Your task to perform on an android device: choose inbox layout in the gmail app Image 0: 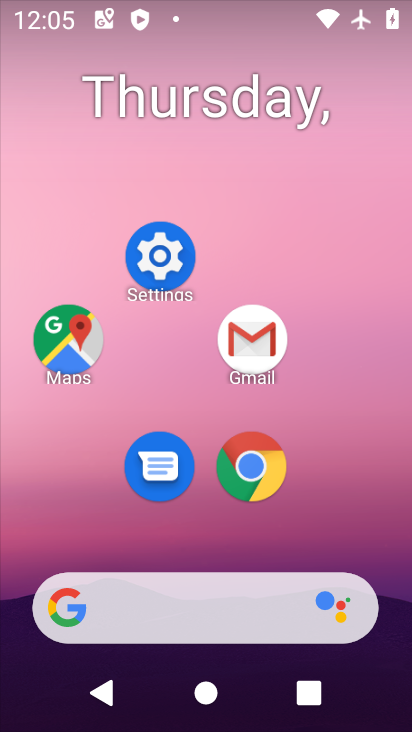
Step 0: drag from (205, 531) to (227, 321)
Your task to perform on an android device: choose inbox layout in the gmail app Image 1: 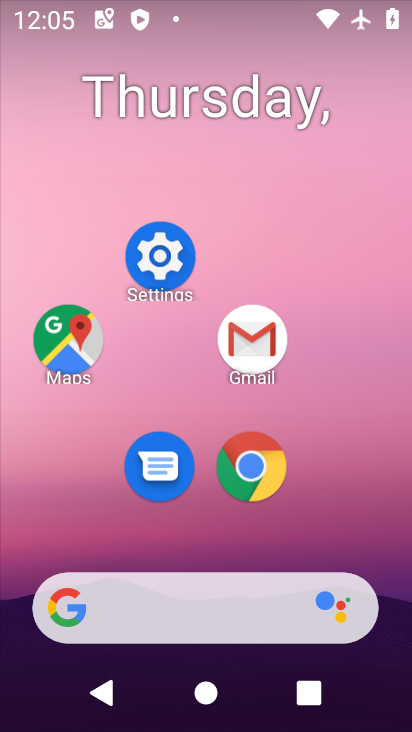
Step 1: click (211, 193)
Your task to perform on an android device: choose inbox layout in the gmail app Image 2: 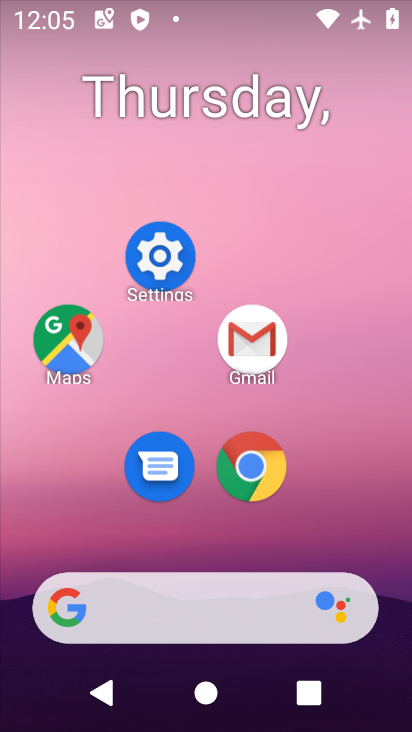
Step 2: drag from (195, 495) to (160, 164)
Your task to perform on an android device: choose inbox layout in the gmail app Image 3: 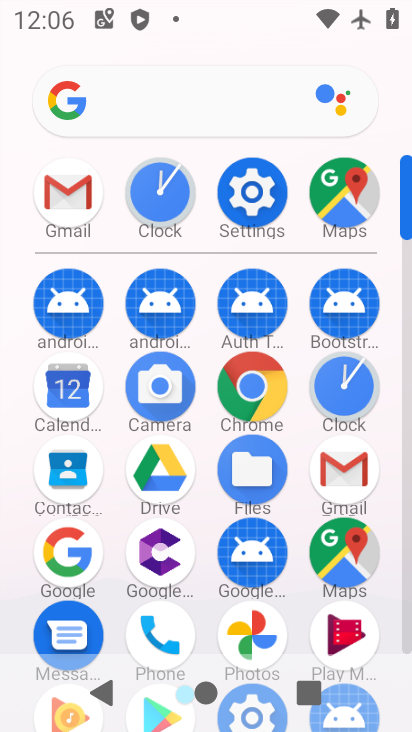
Step 3: click (329, 487)
Your task to perform on an android device: choose inbox layout in the gmail app Image 4: 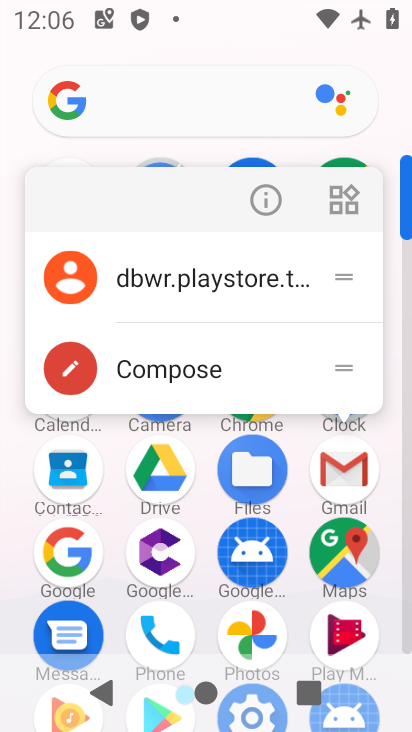
Step 4: click (268, 206)
Your task to perform on an android device: choose inbox layout in the gmail app Image 5: 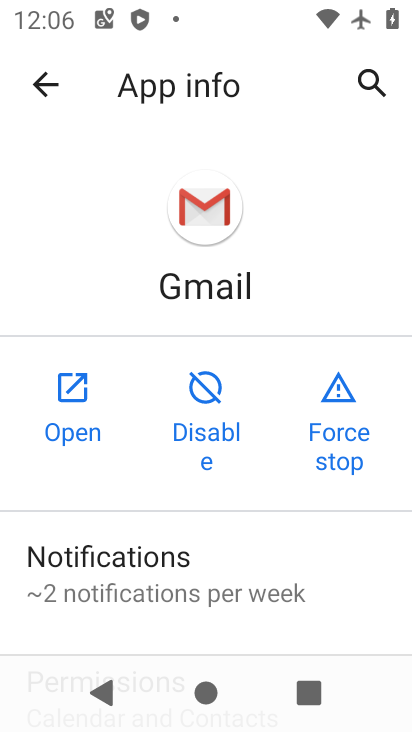
Step 5: click (70, 367)
Your task to perform on an android device: choose inbox layout in the gmail app Image 6: 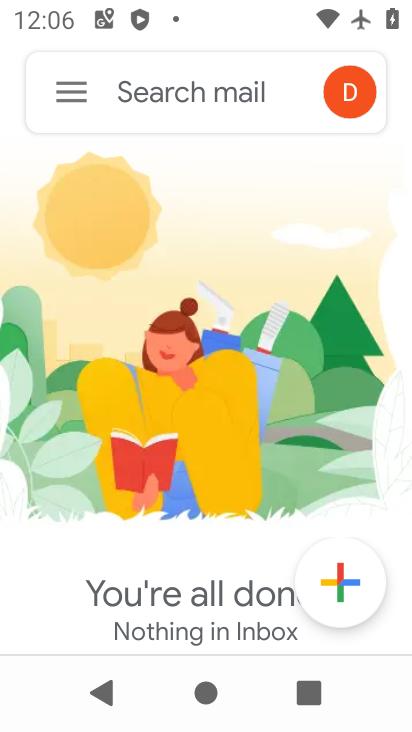
Step 6: drag from (145, 553) to (190, 220)
Your task to perform on an android device: choose inbox layout in the gmail app Image 7: 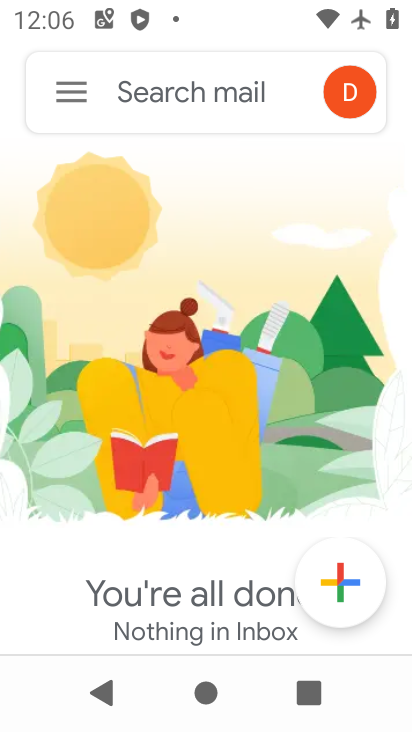
Step 7: click (66, 82)
Your task to perform on an android device: choose inbox layout in the gmail app Image 8: 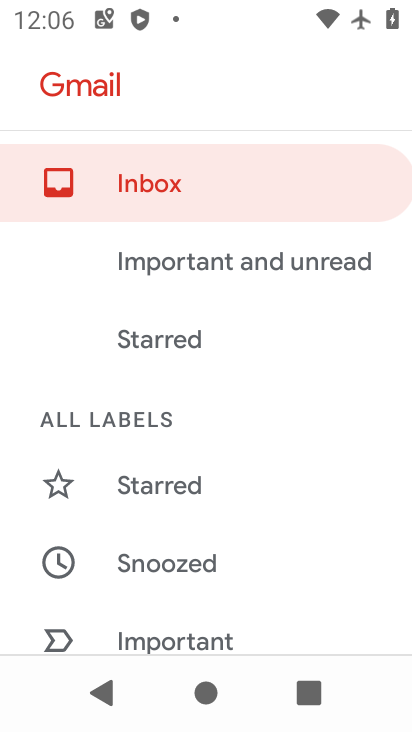
Step 8: drag from (192, 564) to (243, 198)
Your task to perform on an android device: choose inbox layout in the gmail app Image 9: 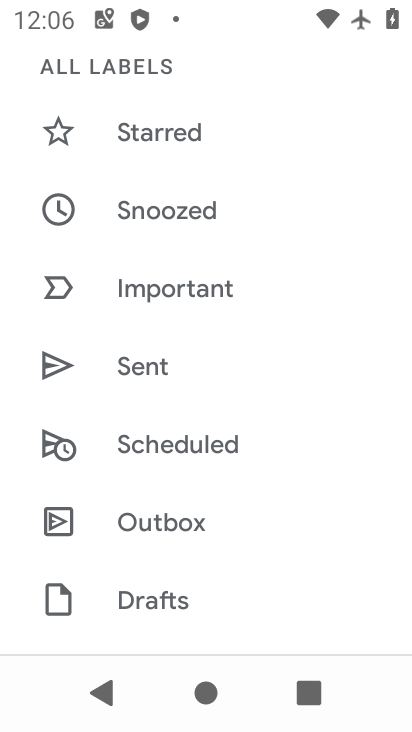
Step 9: drag from (205, 558) to (225, 218)
Your task to perform on an android device: choose inbox layout in the gmail app Image 10: 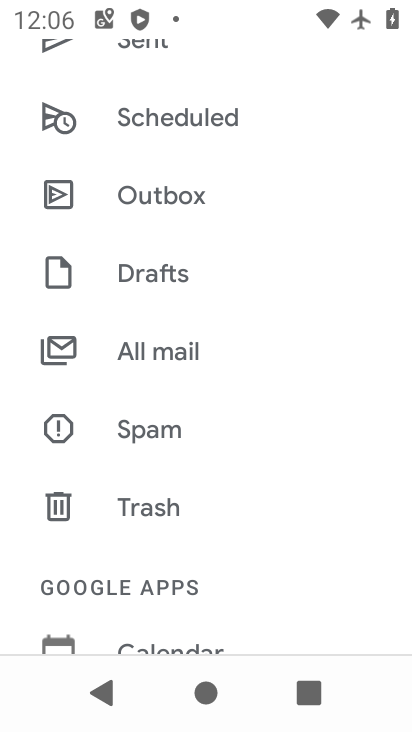
Step 10: click (257, 251)
Your task to perform on an android device: choose inbox layout in the gmail app Image 11: 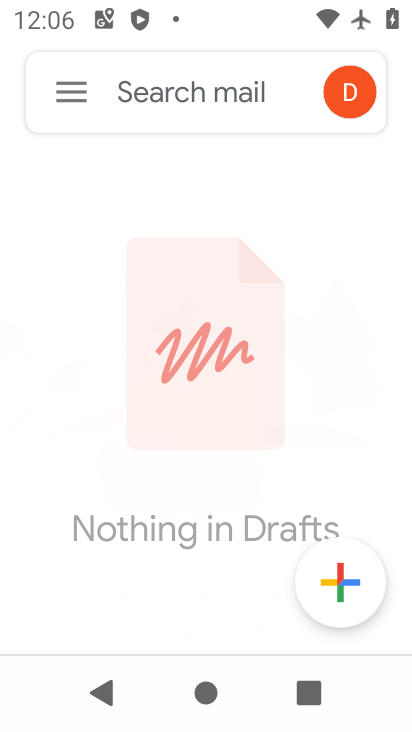
Step 11: drag from (187, 600) to (194, 219)
Your task to perform on an android device: choose inbox layout in the gmail app Image 12: 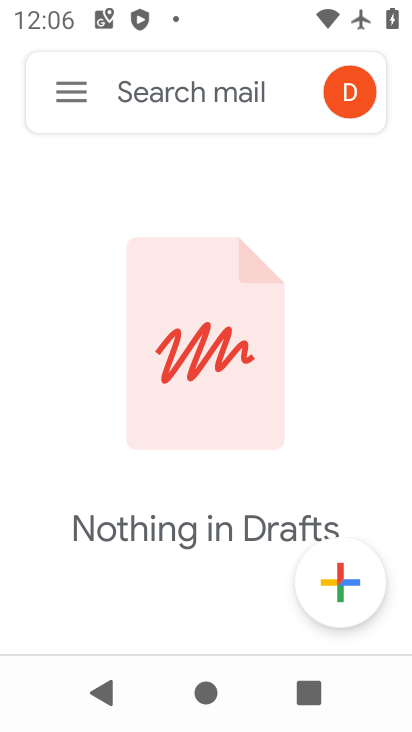
Step 12: click (75, 82)
Your task to perform on an android device: choose inbox layout in the gmail app Image 13: 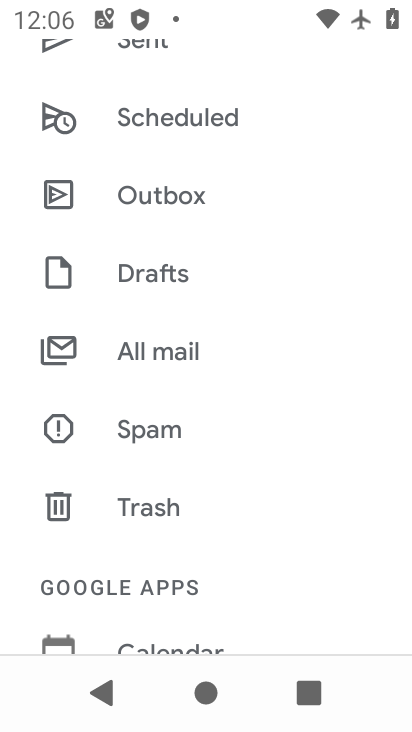
Step 13: drag from (181, 603) to (236, 91)
Your task to perform on an android device: choose inbox layout in the gmail app Image 14: 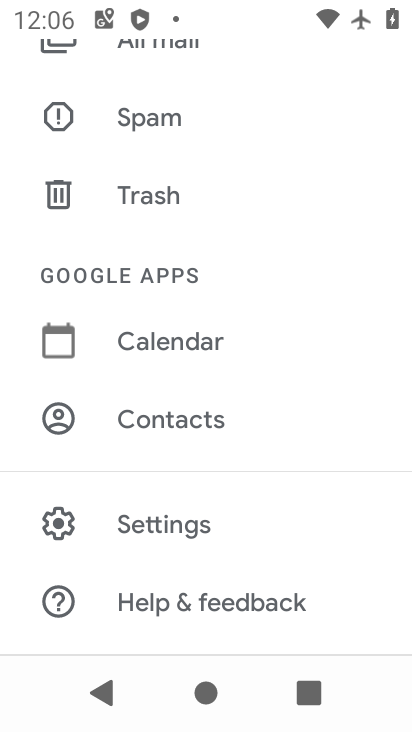
Step 14: click (163, 529)
Your task to perform on an android device: choose inbox layout in the gmail app Image 15: 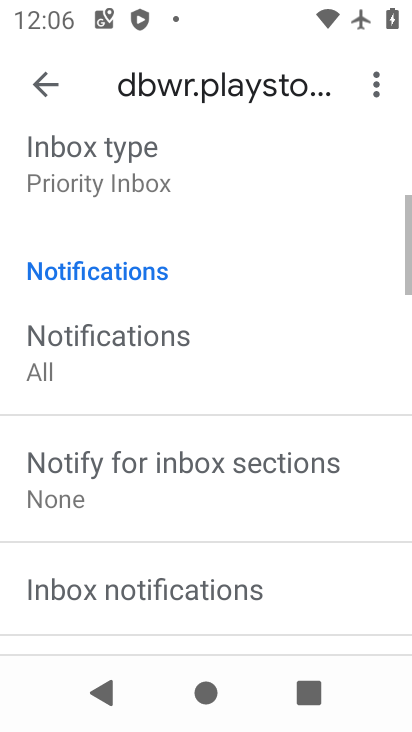
Step 15: drag from (184, 539) to (252, 151)
Your task to perform on an android device: choose inbox layout in the gmail app Image 16: 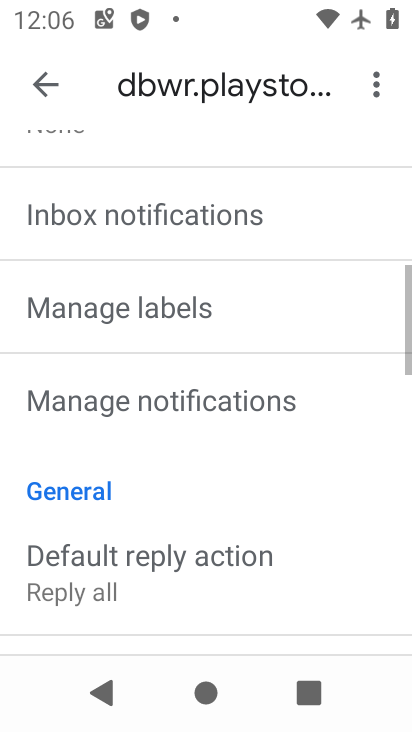
Step 16: drag from (194, 580) to (258, 224)
Your task to perform on an android device: choose inbox layout in the gmail app Image 17: 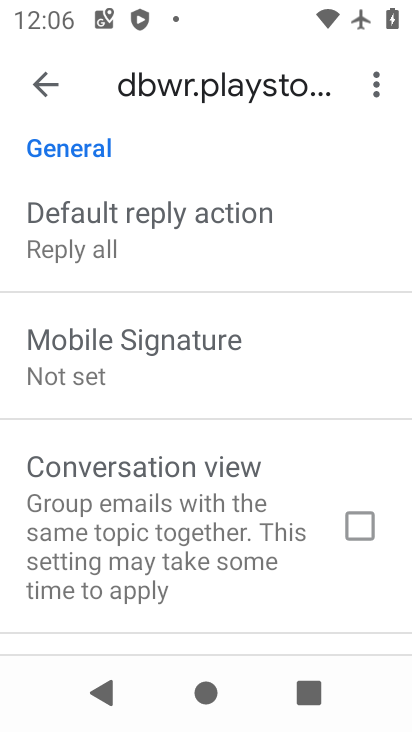
Step 17: drag from (209, 326) to (281, 723)
Your task to perform on an android device: choose inbox layout in the gmail app Image 18: 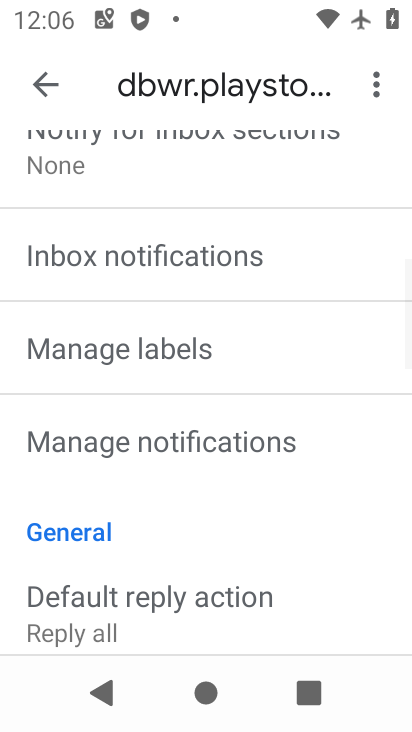
Step 18: drag from (186, 275) to (317, 727)
Your task to perform on an android device: choose inbox layout in the gmail app Image 19: 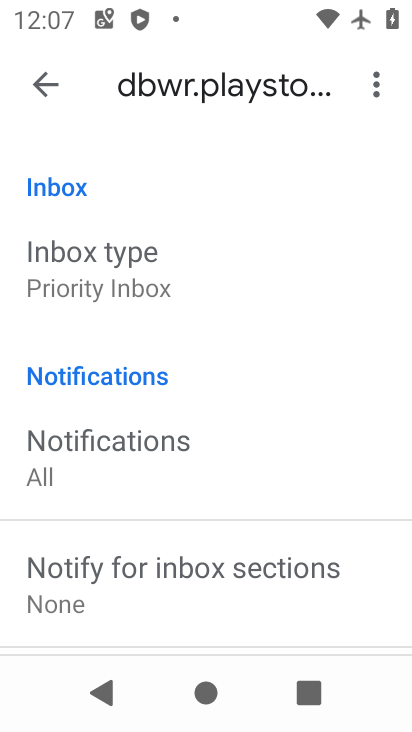
Step 19: drag from (105, 186) to (272, 630)
Your task to perform on an android device: choose inbox layout in the gmail app Image 20: 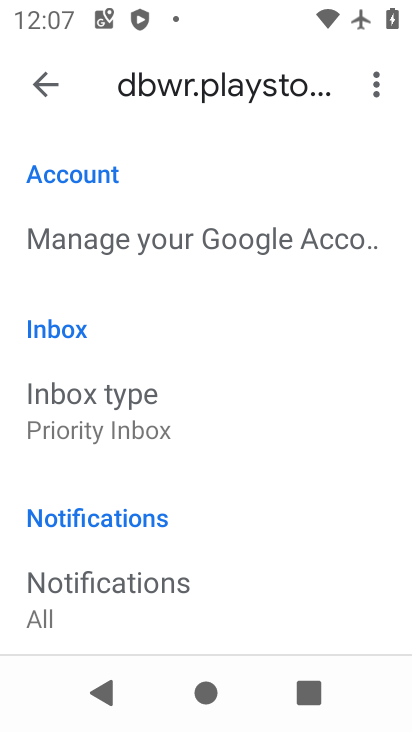
Step 20: click (47, 85)
Your task to perform on an android device: choose inbox layout in the gmail app Image 21: 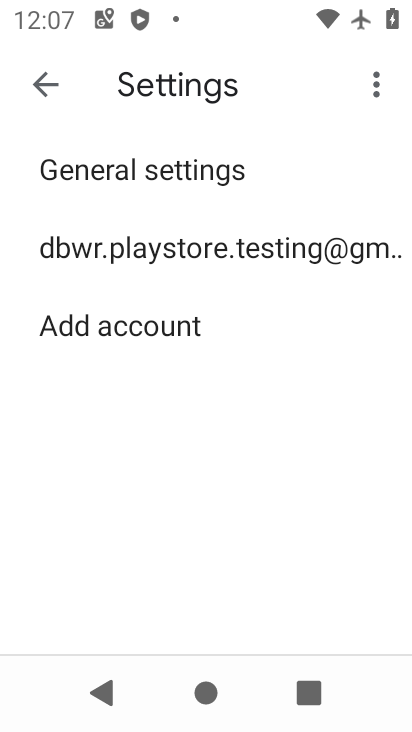
Step 21: click (45, 82)
Your task to perform on an android device: choose inbox layout in the gmail app Image 22: 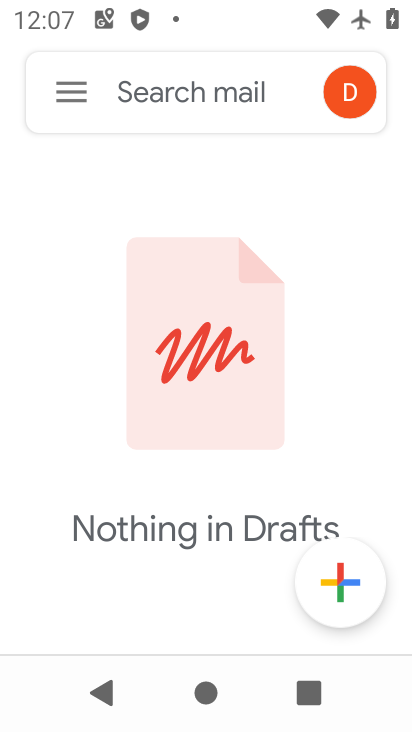
Step 22: click (47, 84)
Your task to perform on an android device: choose inbox layout in the gmail app Image 23: 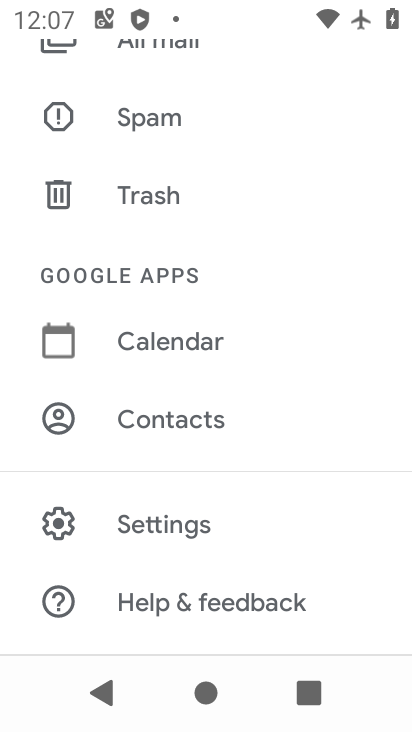
Step 23: drag from (122, 123) to (245, 709)
Your task to perform on an android device: choose inbox layout in the gmail app Image 24: 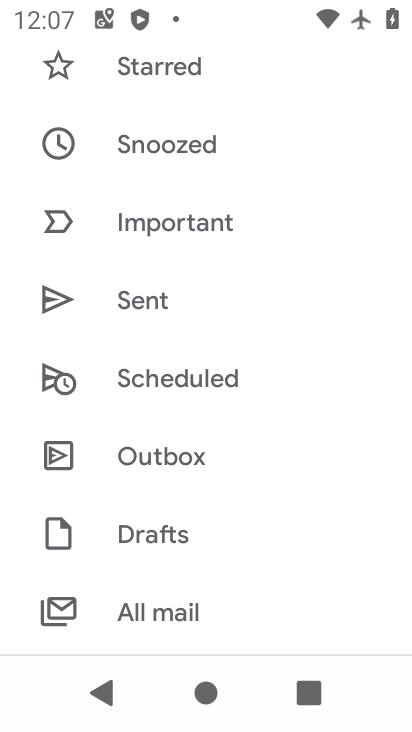
Step 24: drag from (155, 143) to (353, 690)
Your task to perform on an android device: choose inbox layout in the gmail app Image 25: 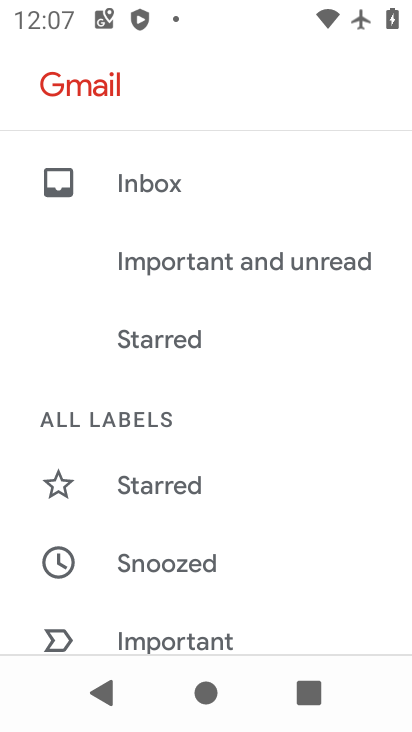
Step 25: click (187, 200)
Your task to perform on an android device: choose inbox layout in the gmail app Image 26: 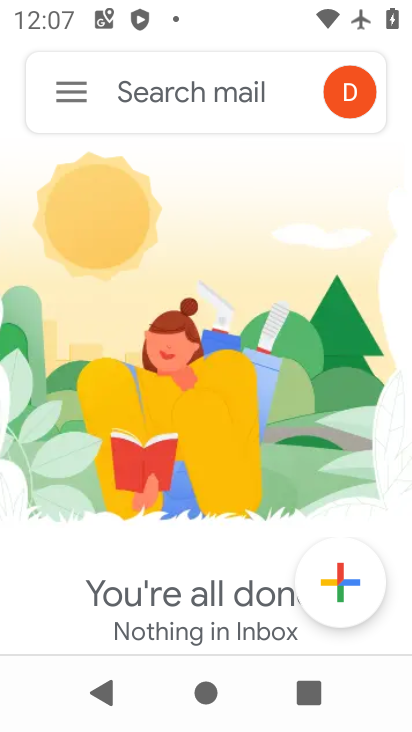
Step 26: task complete